Your task to perform on an android device: toggle translation in the chrome app Image 0: 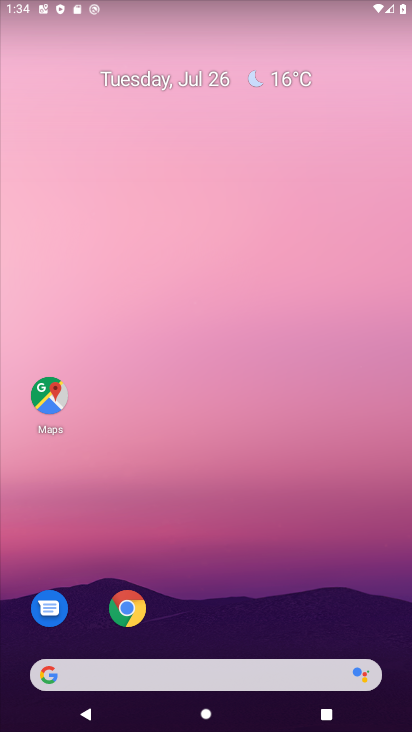
Step 0: click (137, 616)
Your task to perform on an android device: toggle translation in the chrome app Image 1: 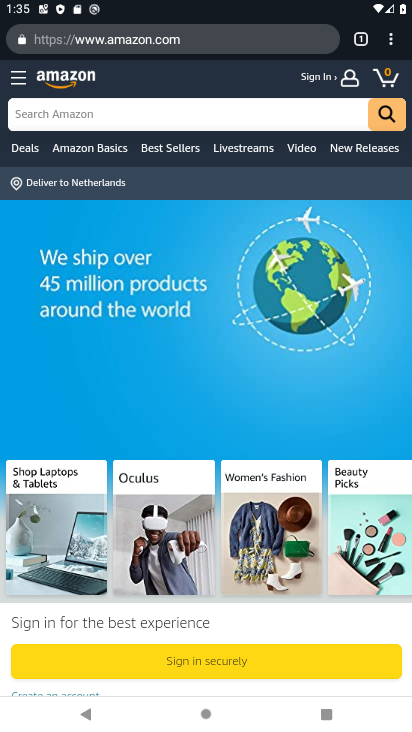
Step 1: click (393, 43)
Your task to perform on an android device: toggle translation in the chrome app Image 2: 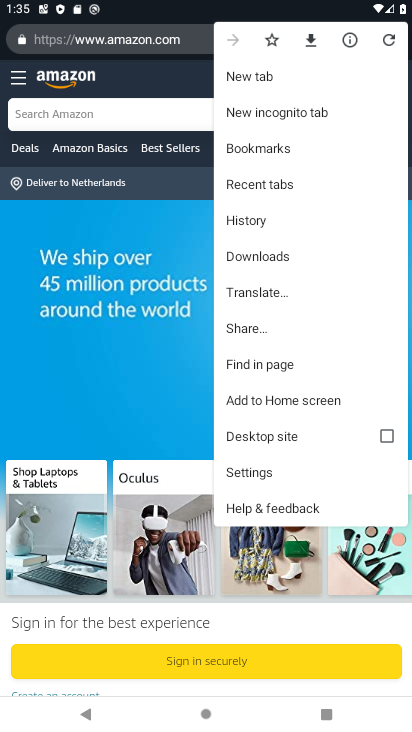
Step 2: click (272, 474)
Your task to perform on an android device: toggle translation in the chrome app Image 3: 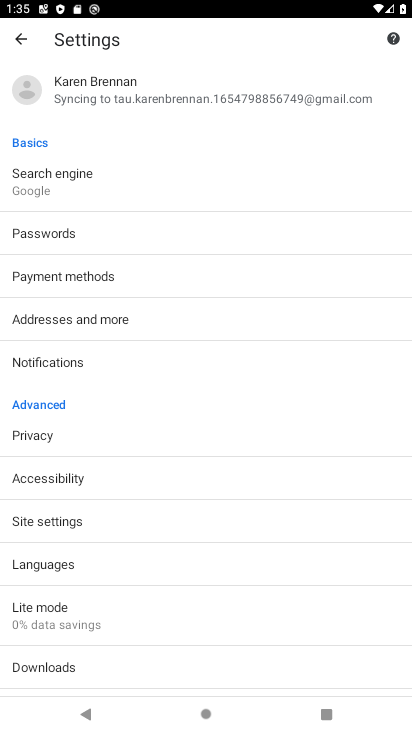
Step 3: click (148, 564)
Your task to perform on an android device: toggle translation in the chrome app Image 4: 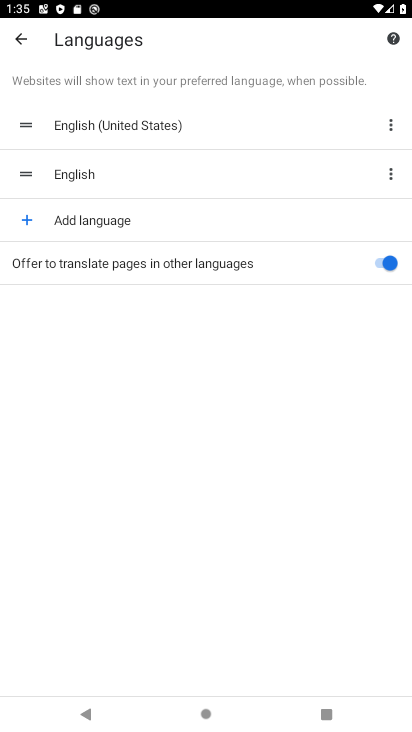
Step 4: task complete